Your task to perform on an android device: Search for Italian restaurants on Maps Image 0: 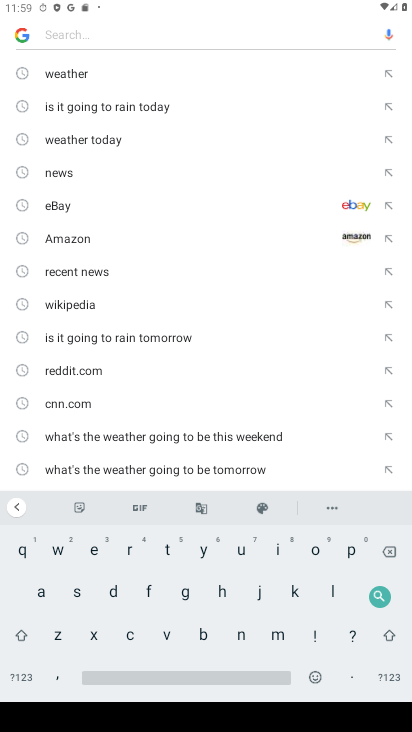
Step 0: press home button
Your task to perform on an android device: Search for Italian restaurants on Maps Image 1: 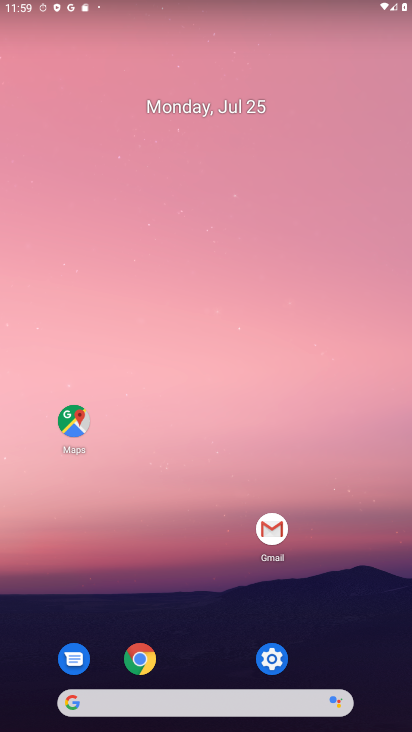
Step 1: click (88, 411)
Your task to perform on an android device: Search for Italian restaurants on Maps Image 2: 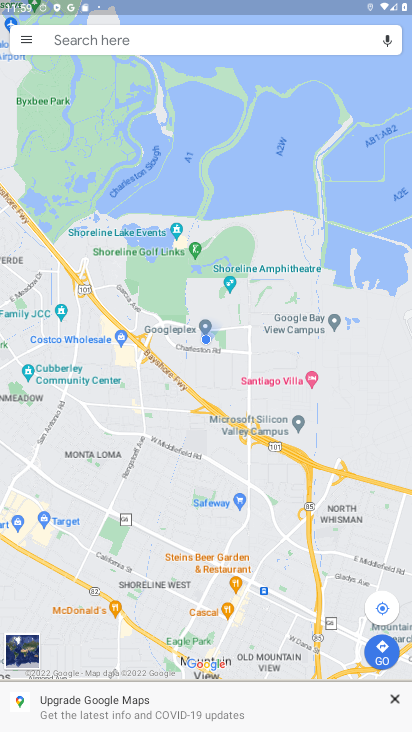
Step 2: click (141, 42)
Your task to perform on an android device: Search for Italian restaurants on Maps Image 3: 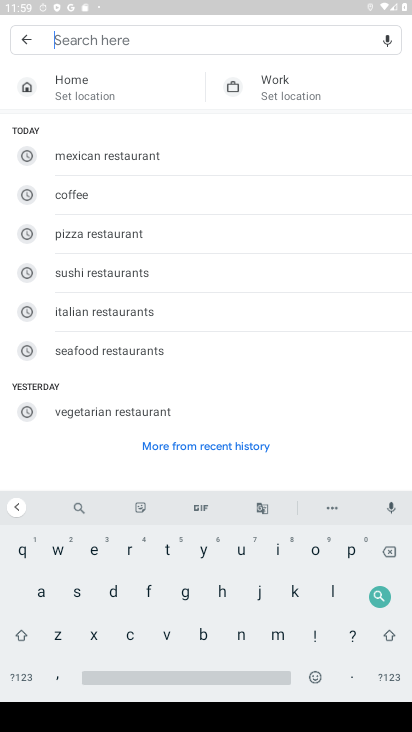
Step 3: click (135, 303)
Your task to perform on an android device: Search for Italian restaurants on Maps Image 4: 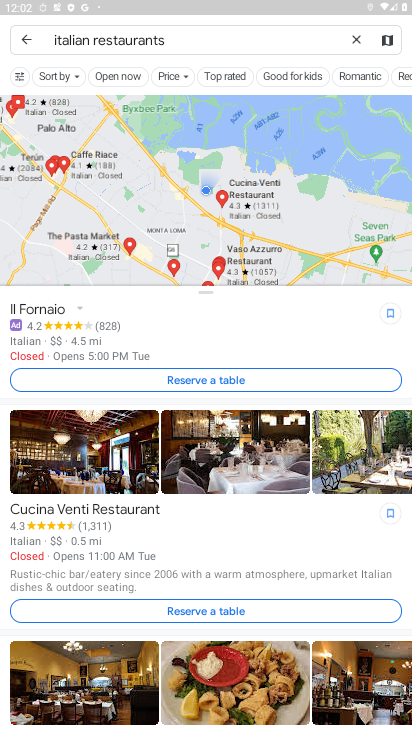
Step 4: task complete